Your task to perform on an android device: Go to wifi settings Image 0: 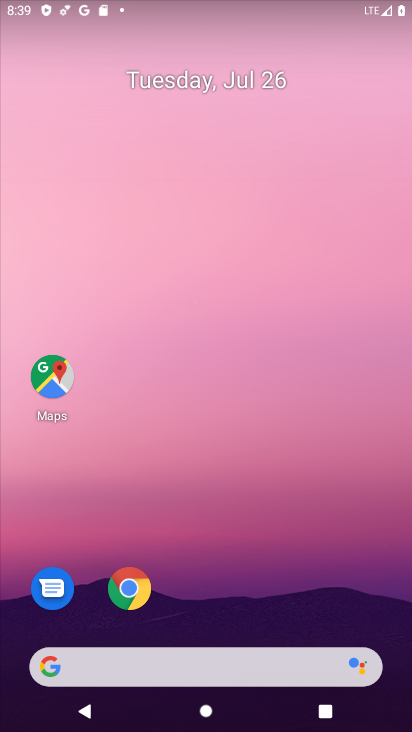
Step 0: click (243, 406)
Your task to perform on an android device: Go to wifi settings Image 1: 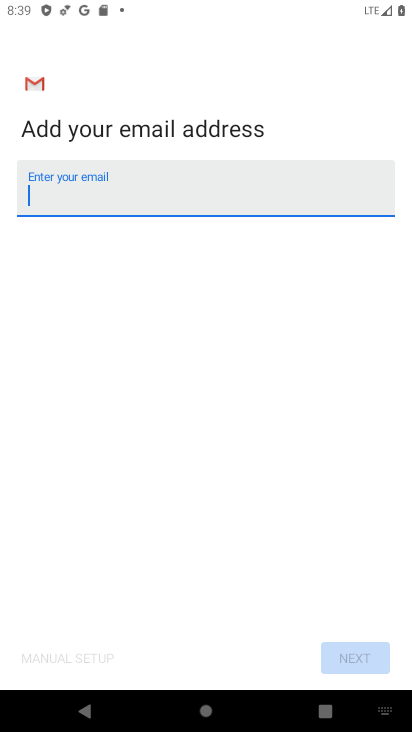
Step 1: press home button
Your task to perform on an android device: Go to wifi settings Image 2: 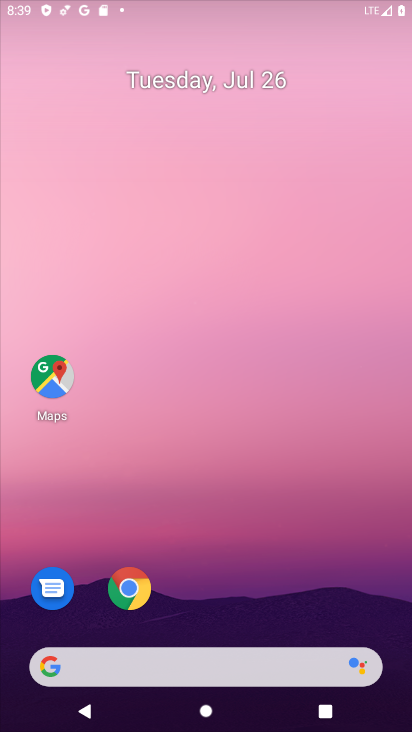
Step 2: drag from (216, 2) to (211, 493)
Your task to perform on an android device: Go to wifi settings Image 3: 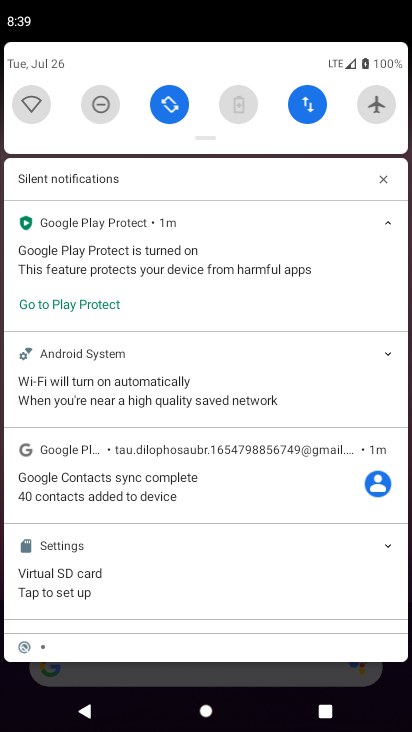
Step 3: click (38, 112)
Your task to perform on an android device: Go to wifi settings Image 4: 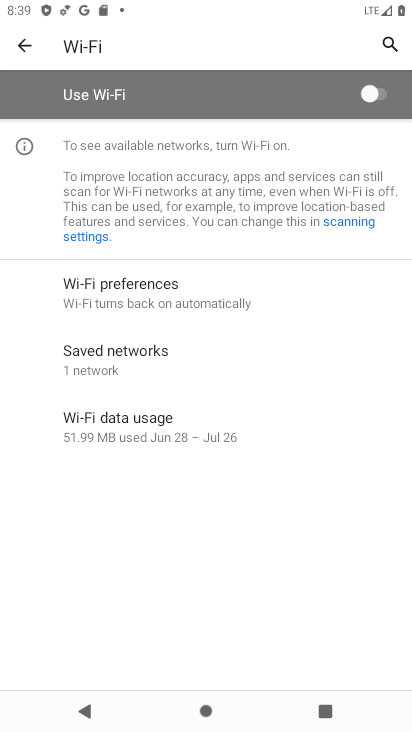
Step 4: click (370, 93)
Your task to perform on an android device: Go to wifi settings Image 5: 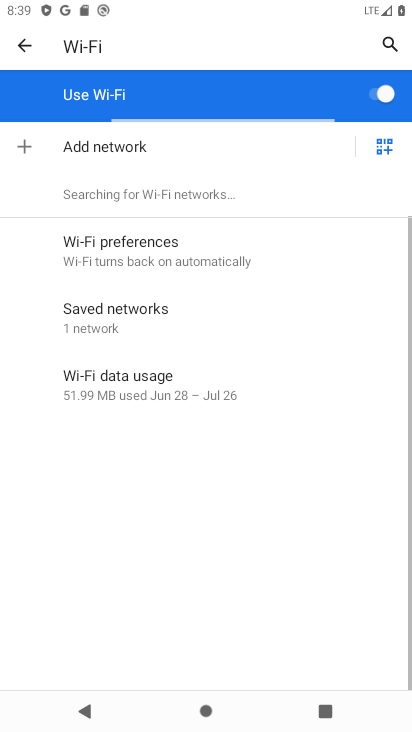
Step 5: task complete